Your task to perform on an android device: Open notification settings Image 0: 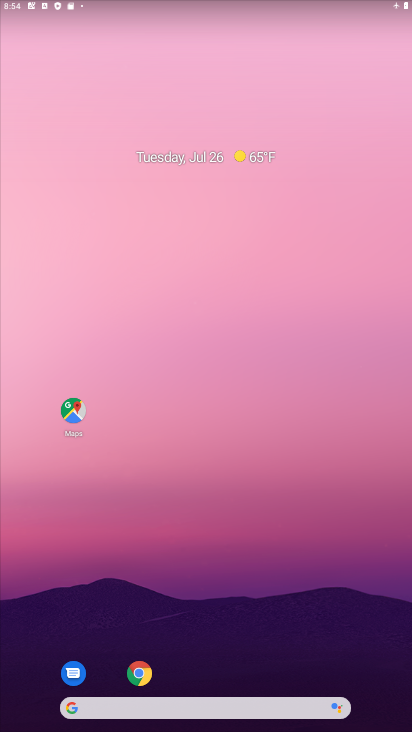
Step 0: drag from (207, 665) to (207, 0)
Your task to perform on an android device: Open notification settings Image 1: 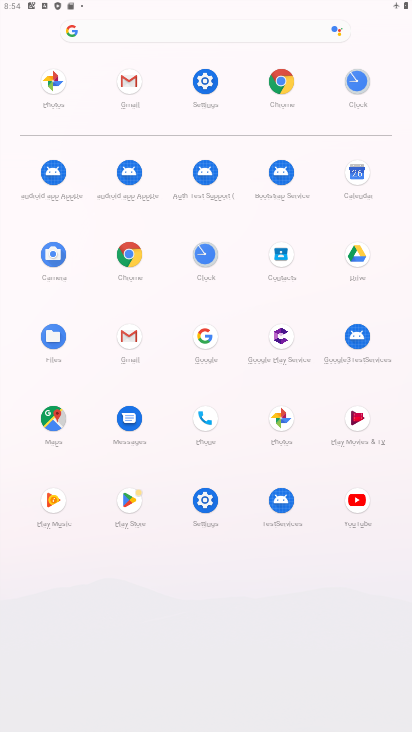
Step 1: click (201, 97)
Your task to perform on an android device: Open notification settings Image 2: 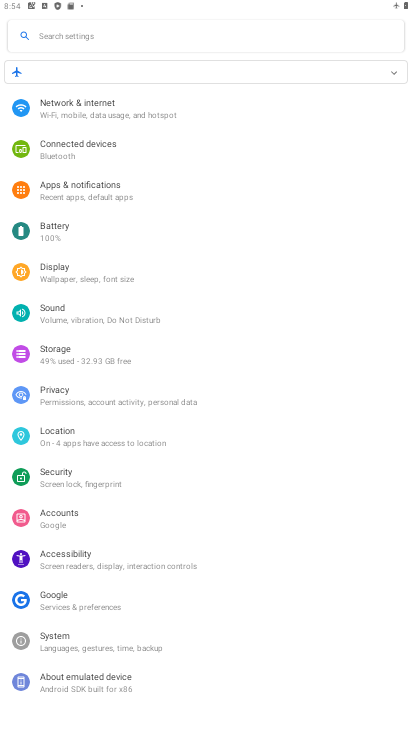
Step 2: click (111, 195)
Your task to perform on an android device: Open notification settings Image 3: 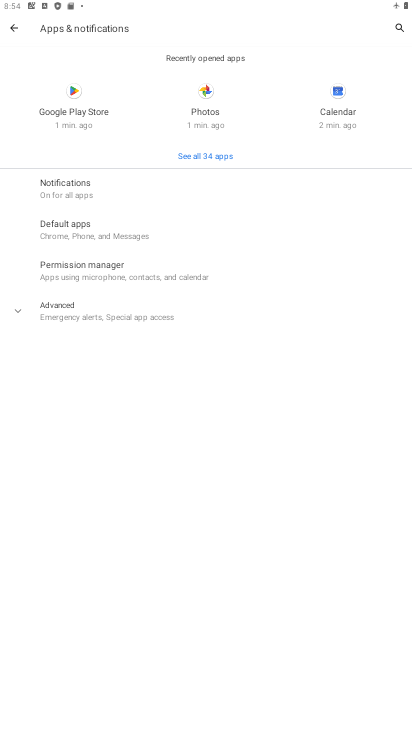
Step 3: click (113, 193)
Your task to perform on an android device: Open notification settings Image 4: 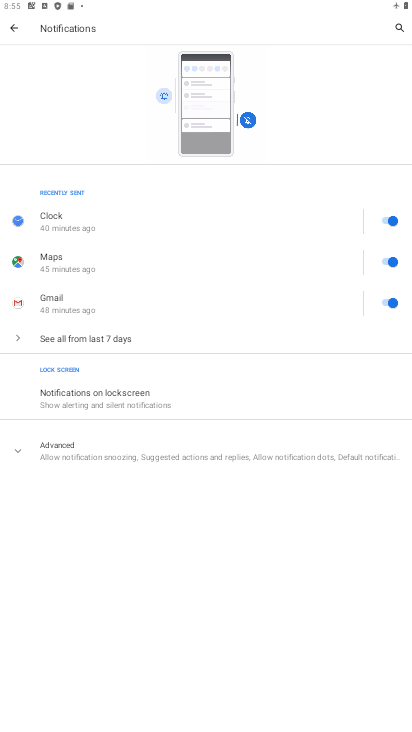
Step 4: task complete